Your task to perform on an android device: Open privacy settings Image 0: 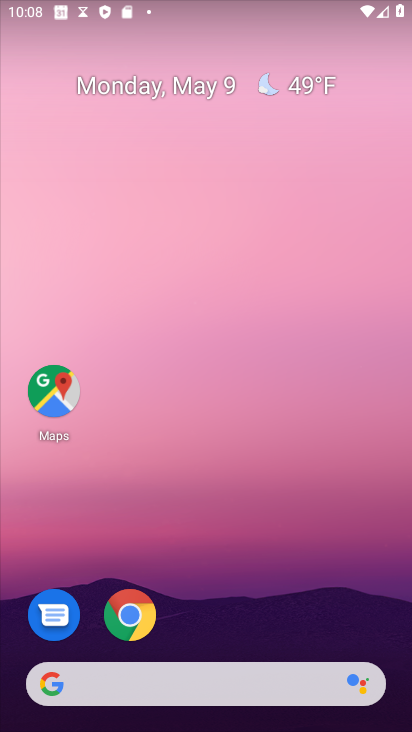
Step 0: drag from (245, 576) to (252, 90)
Your task to perform on an android device: Open privacy settings Image 1: 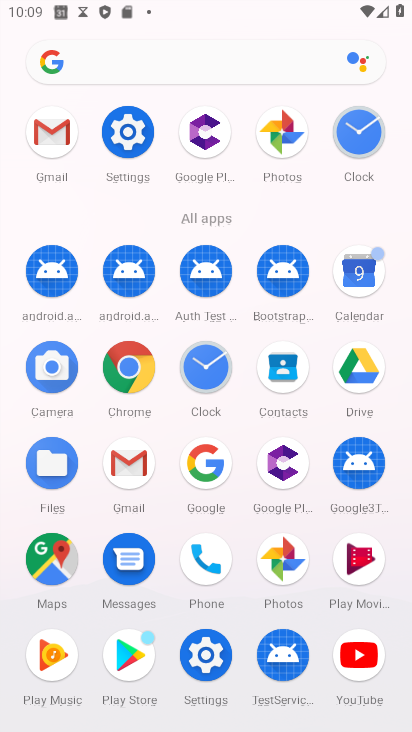
Step 1: click (131, 150)
Your task to perform on an android device: Open privacy settings Image 2: 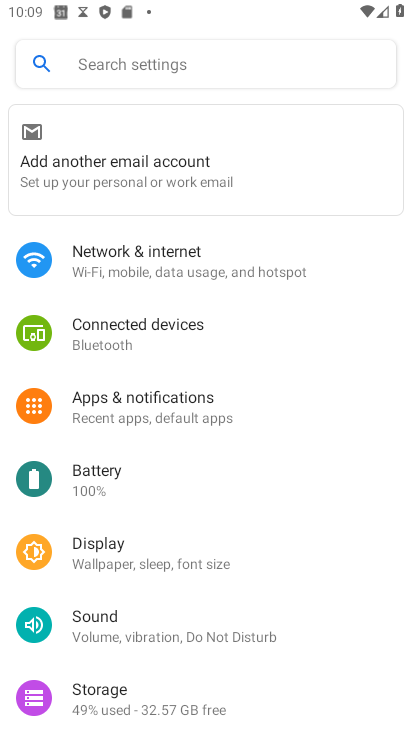
Step 2: drag from (208, 651) to (197, 486)
Your task to perform on an android device: Open privacy settings Image 3: 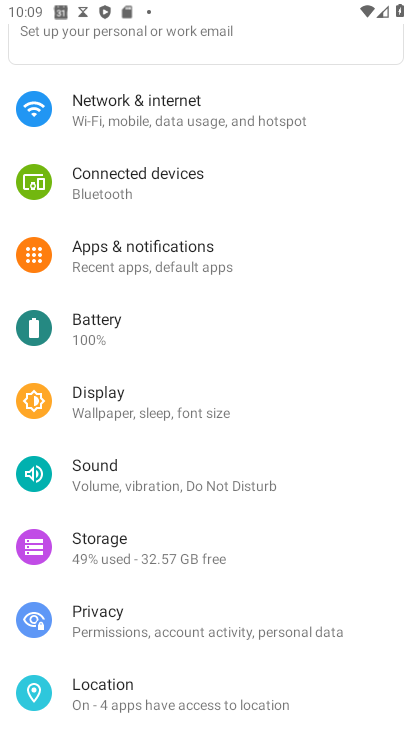
Step 3: click (162, 614)
Your task to perform on an android device: Open privacy settings Image 4: 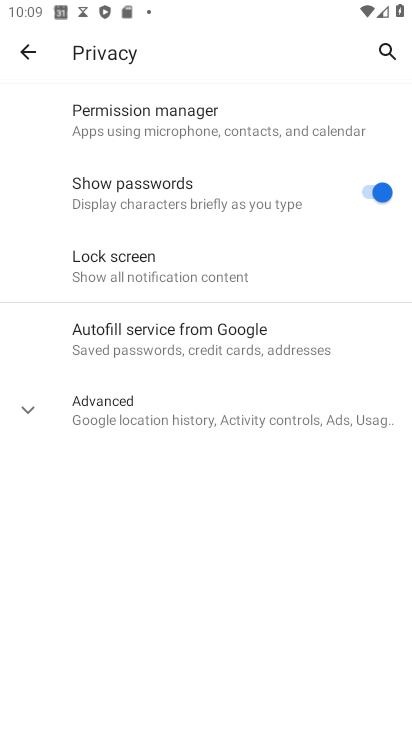
Step 4: task complete